Your task to perform on an android device: turn pop-ups on in chrome Image 0: 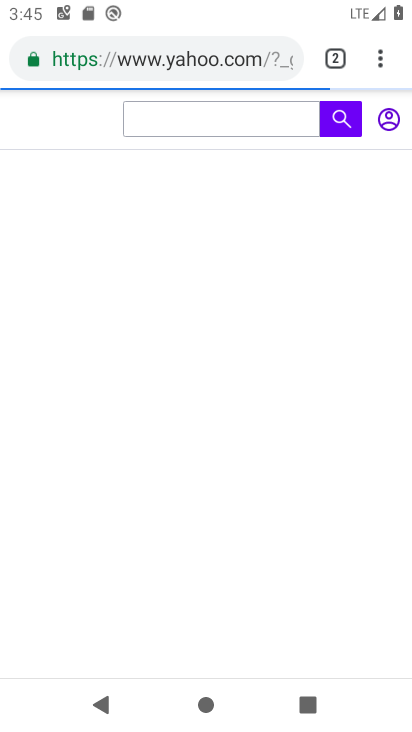
Step 0: click (384, 58)
Your task to perform on an android device: turn pop-ups on in chrome Image 1: 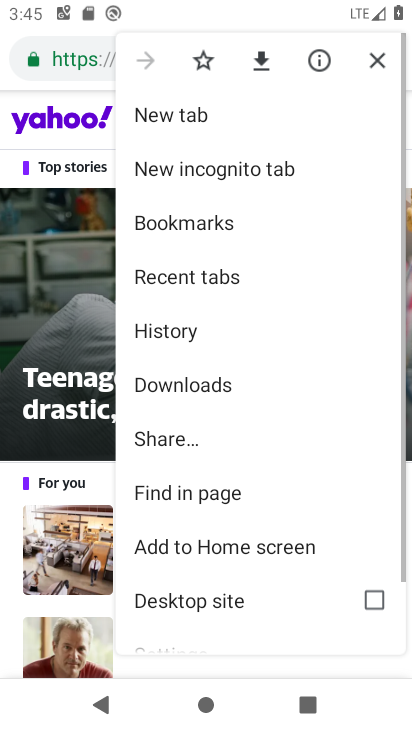
Step 1: click (384, 58)
Your task to perform on an android device: turn pop-ups on in chrome Image 2: 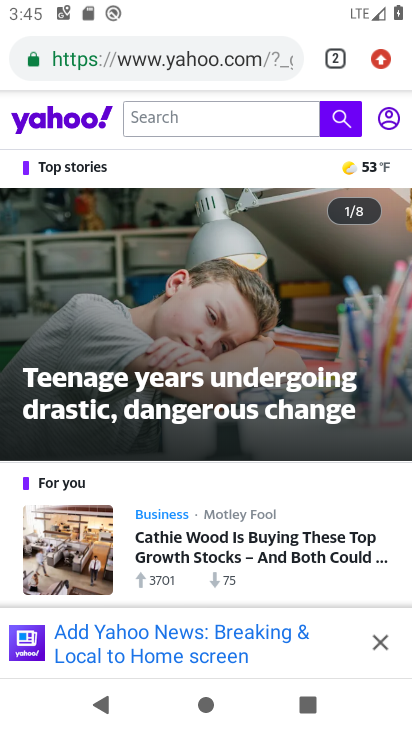
Step 2: click (384, 58)
Your task to perform on an android device: turn pop-ups on in chrome Image 3: 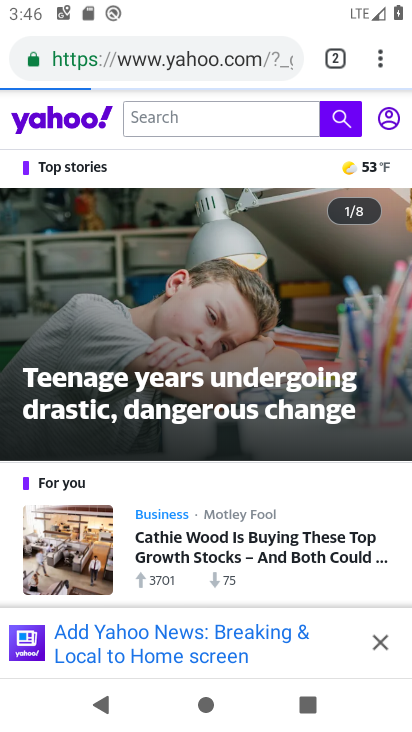
Step 3: click (384, 58)
Your task to perform on an android device: turn pop-ups on in chrome Image 4: 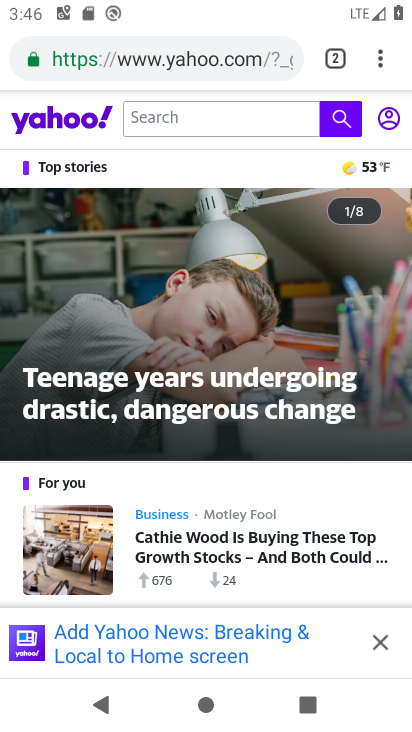
Step 4: click (384, 58)
Your task to perform on an android device: turn pop-ups on in chrome Image 5: 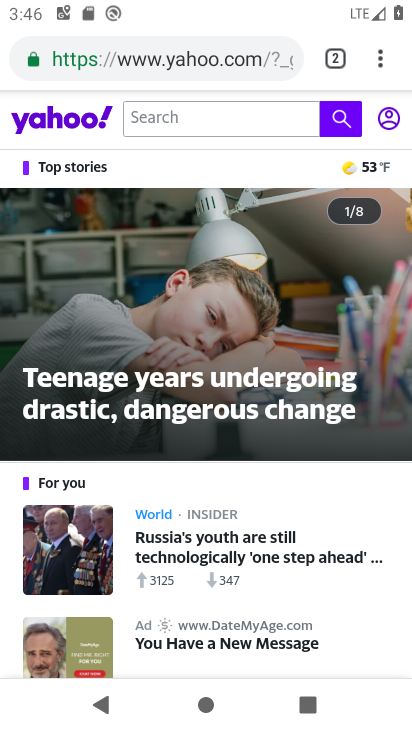
Step 5: click (394, 58)
Your task to perform on an android device: turn pop-ups on in chrome Image 6: 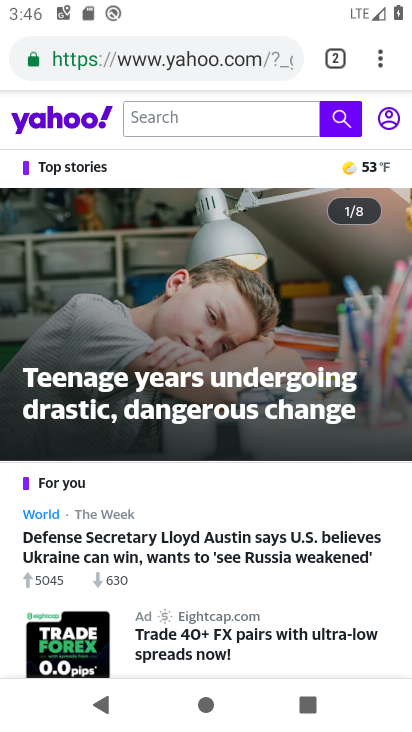
Step 6: click (391, 56)
Your task to perform on an android device: turn pop-ups on in chrome Image 7: 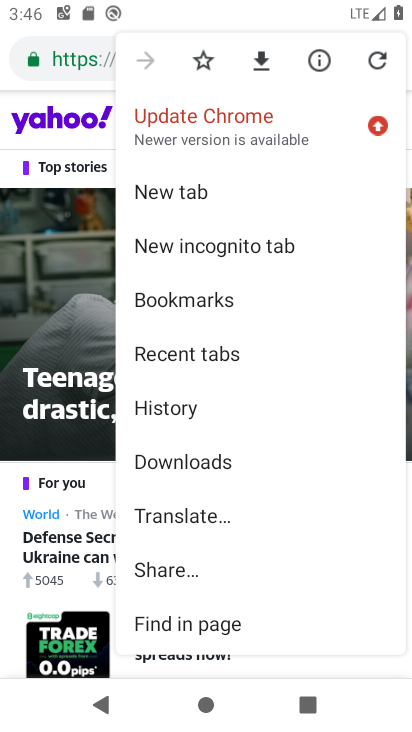
Step 7: drag from (270, 580) to (312, 269)
Your task to perform on an android device: turn pop-ups on in chrome Image 8: 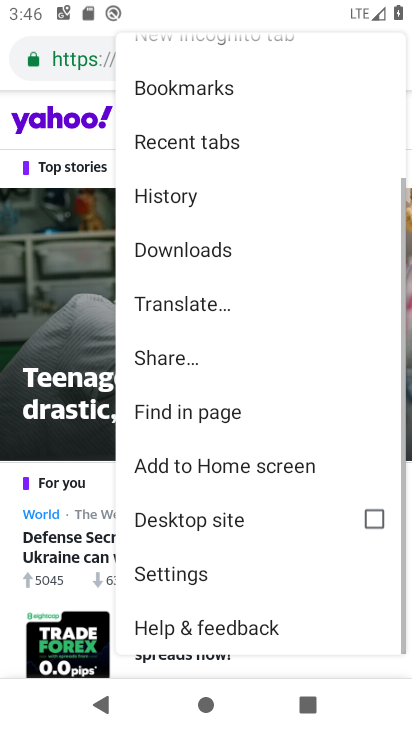
Step 8: click (277, 558)
Your task to perform on an android device: turn pop-ups on in chrome Image 9: 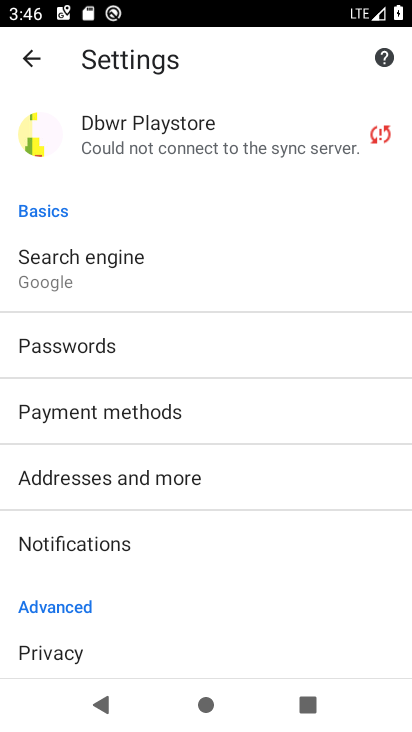
Step 9: drag from (219, 600) to (289, 250)
Your task to perform on an android device: turn pop-ups on in chrome Image 10: 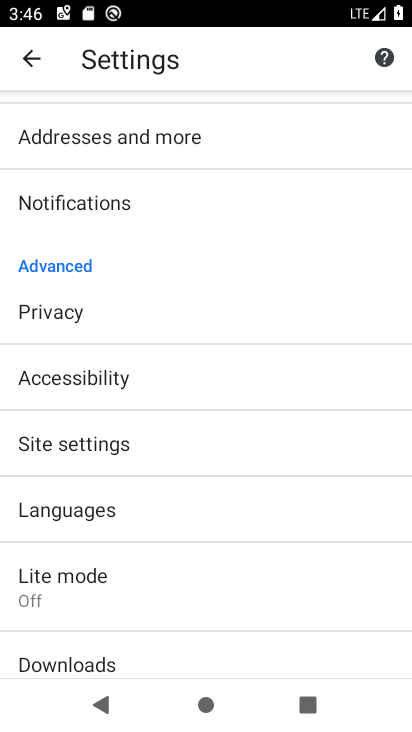
Step 10: click (201, 415)
Your task to perform on an android device: turn pop-ups on in chrome Image 11: 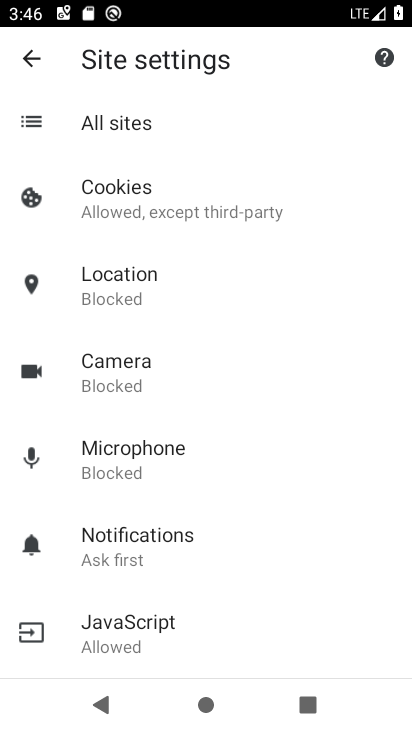
Step 11: drag from (147, 558) to (260, 232)
Your task to perform on an android device: turn pop-ups on in chrome Image 12: 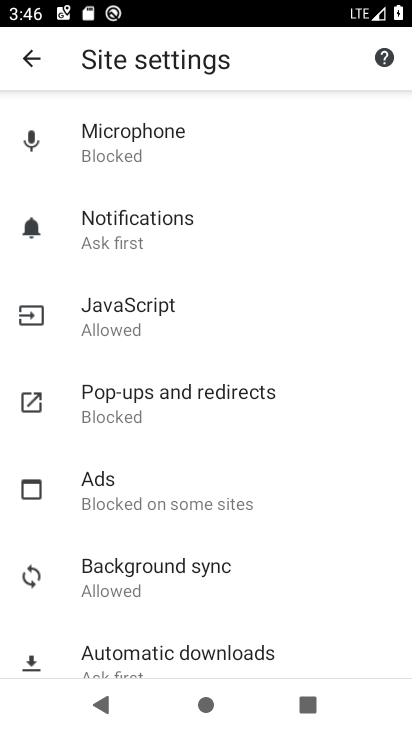
Step 12: click (215, 413)
Your task to perform on an android device: turn pop-ups on in chrome Image 13: 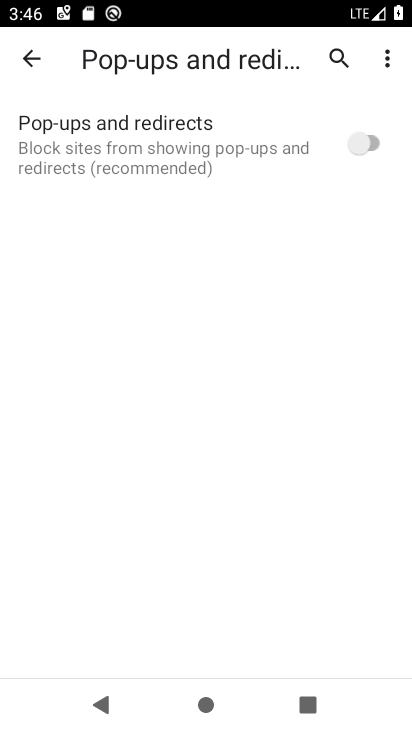
Step 13: click (365, 153)
Your task to perform on an android device: turn pop-ups on in chrome Image 14: 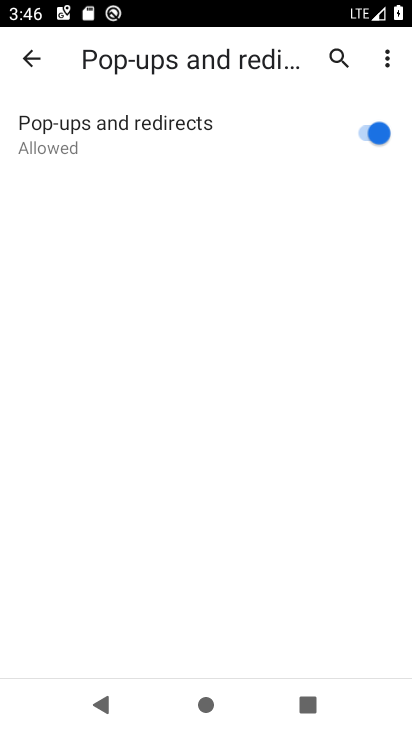
Step 14: task complete